Your task to perform on an android device: open chrome and create a bookmark for the current page Image 0: 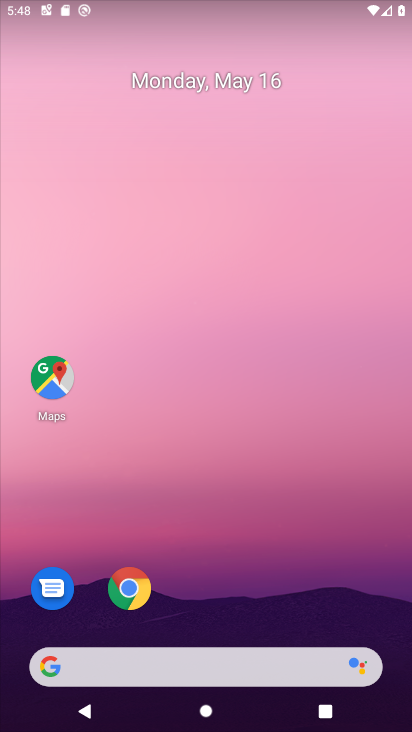
Step 0: click (136, 588)
Your task to perform on an android device: open chrome and create a bookmark for the current page Image 1: 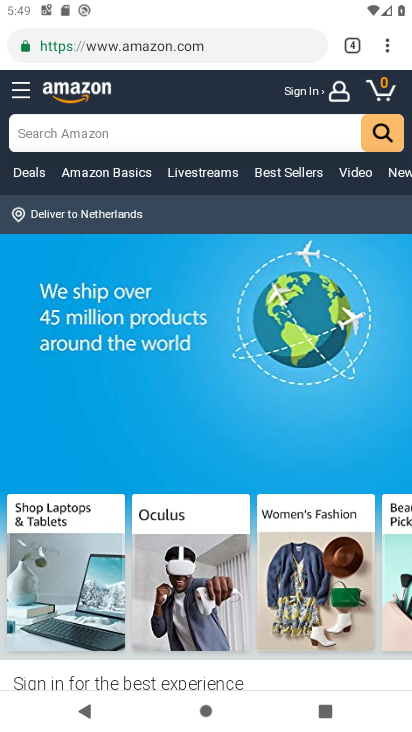
Step 1: click (390, 46)
Your task to perform on an android device: open chrome and create a bookmark for the current page Image 2: 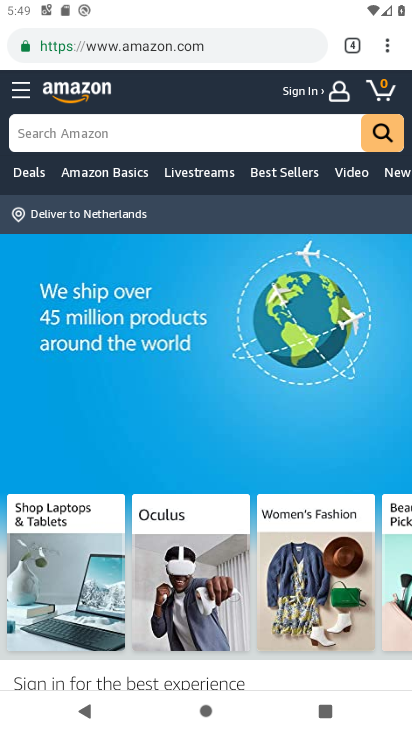
Step 2: click (377, 41)
Your task to perform on an android device: open chrome and create a bookmark for the current page Image 3: 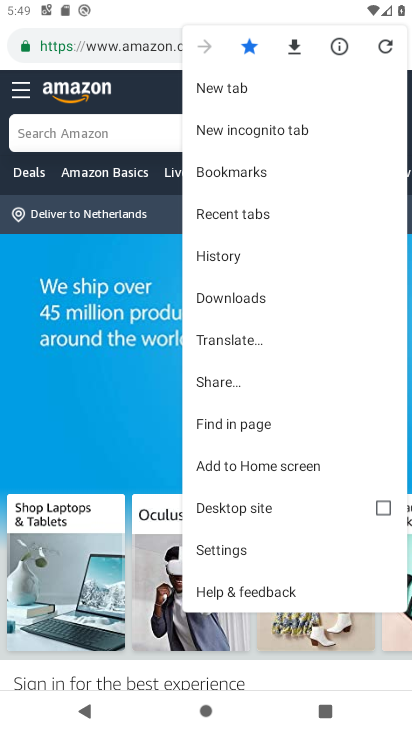
Step 3: task complete